Your task to perform on an android device: show emergency info Image 0: 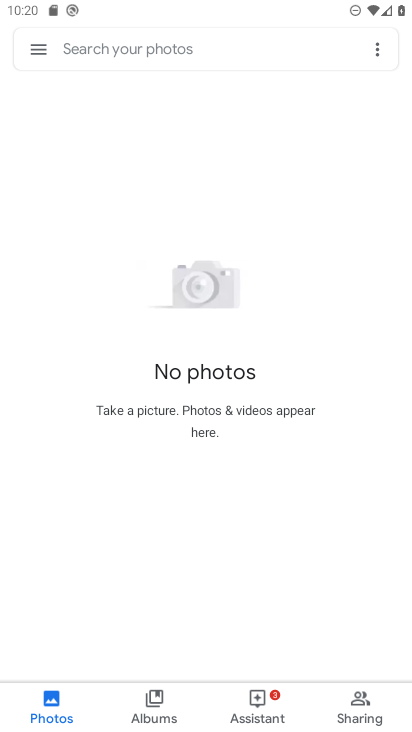
Step 0: press home button
Your task to perform on an android device: show emergency info Image 1: 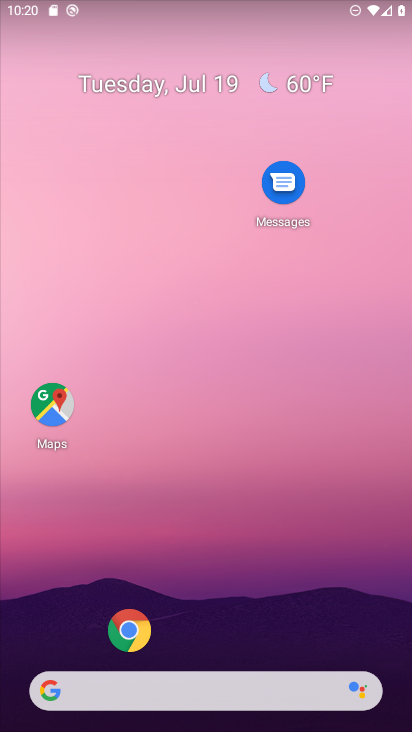
Step 1: drag from (62, 509) to (283, 51)
Your task to perform on an android device: show emergency info Image 2: 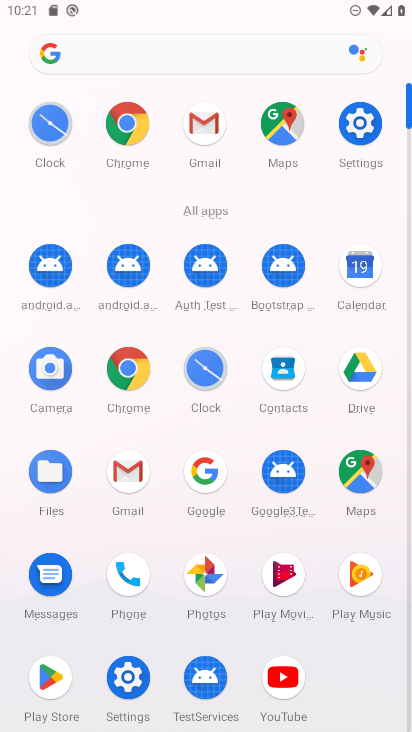
Step 2: click (113, 684)
Your task to perform on an android device: show emergency info Image 3: 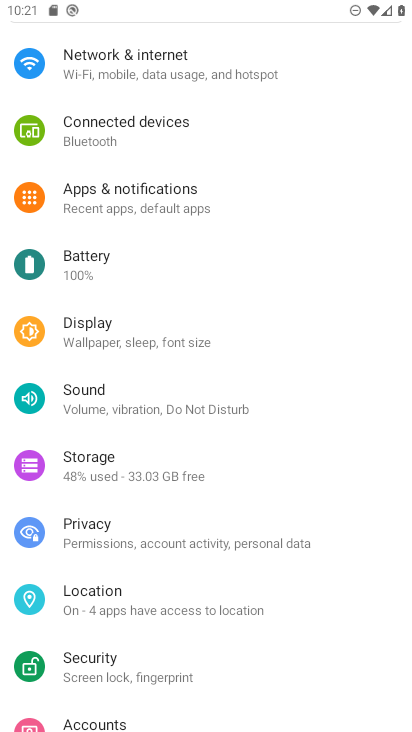
Step 3: drag from (178, 652) to (206, 375)
Your task to perform on an android device: show emergency info Image 4: 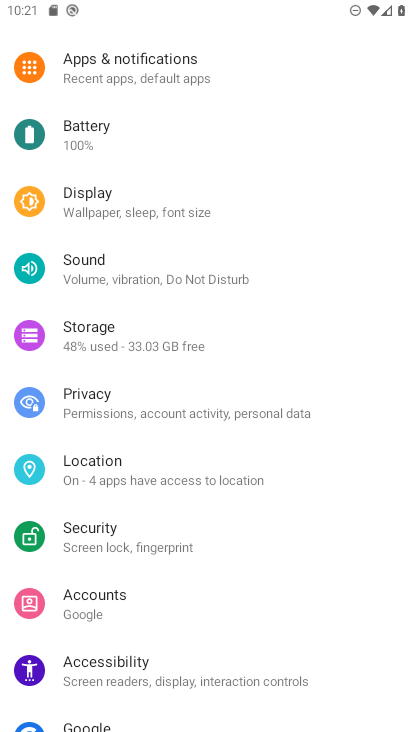
Step 4: drag from (261, 690) to (300, 504)
Your task to perform on an android device: show emergency info Image 5: 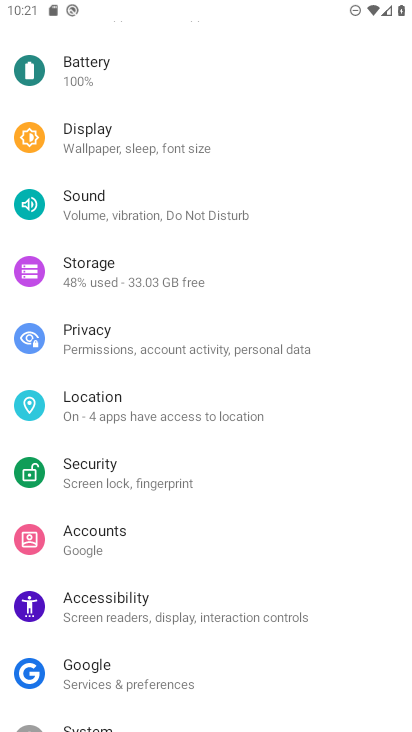
Step 5: drag from (244, 89) to (232, 552)
Your task to perform on an android device: show emergency info Image 6: 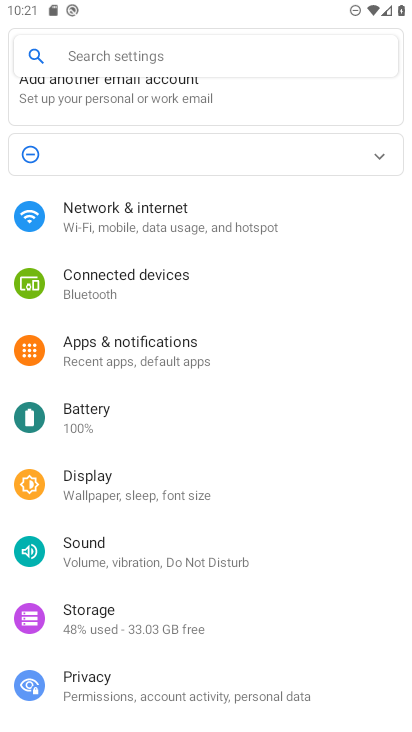
Step 6: click (168, 354)
Your task to perform on an android device: show emergency info Image 7: 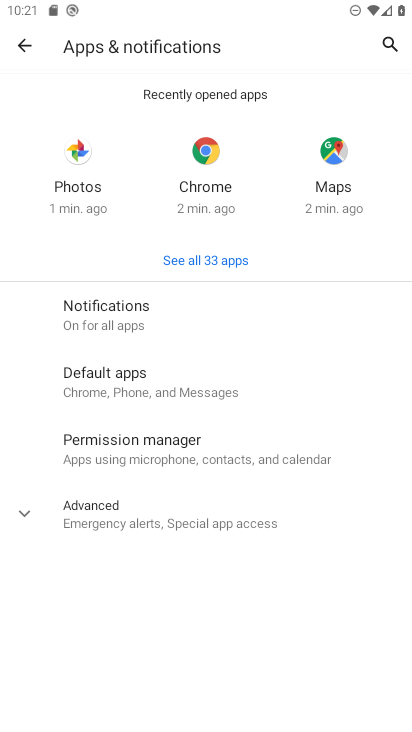
Step 7: click (122, 504)
Your task to perform on an android device: show emergency info Image 8: 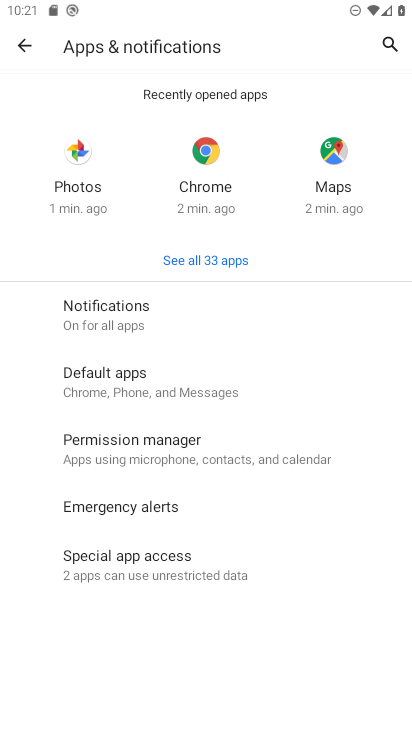
Step 8: click (135, 501)
Your task to perform on an android device: show emergency info Image 9: 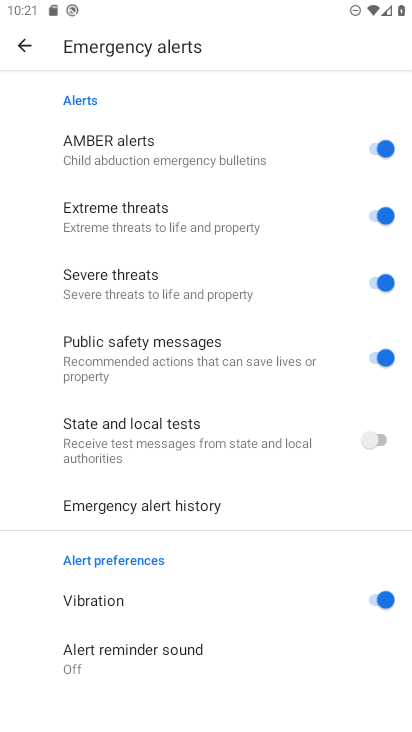
Step 9: task complete